Your task to perform on an android device: toggle airplane mode Image 0: 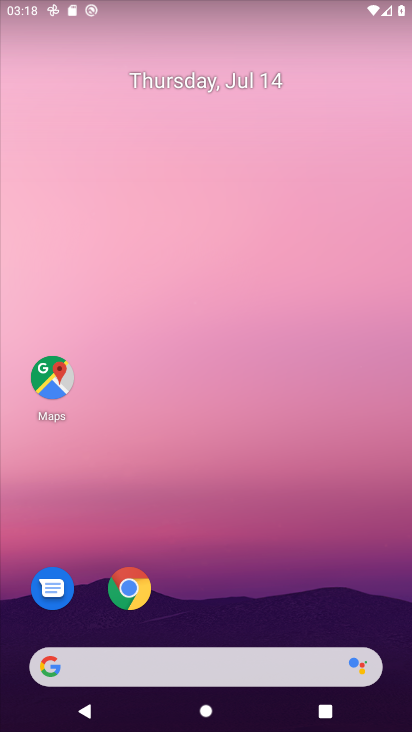
Step 0: drag from (299, 566) to (242, 206)
Your task to perform on an android device: toggle airplane mode Image 1: 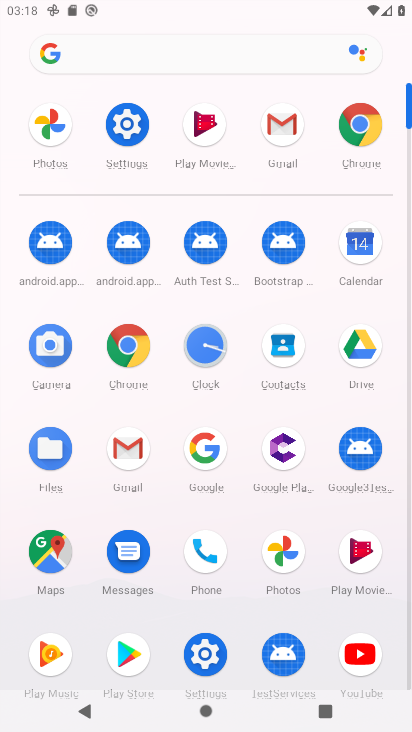
Step 1: click (124, 138)
Your task to perform on an android device: toggle airplane mode Image 2: 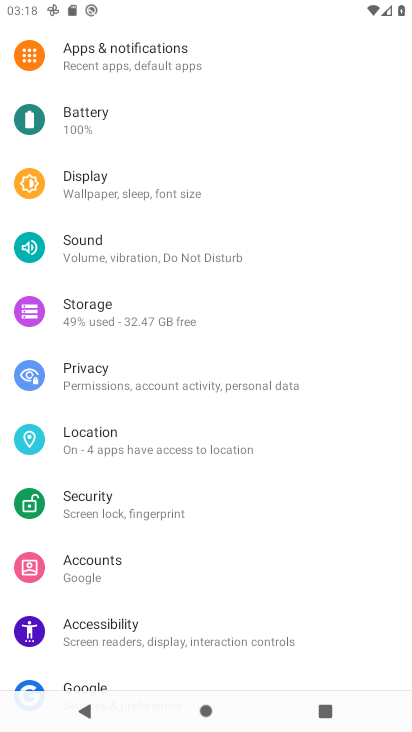
Step 2: drag from (206, 102) to (220, 492)
Your task to perform on an android device: toggle airplane mode Image 3: 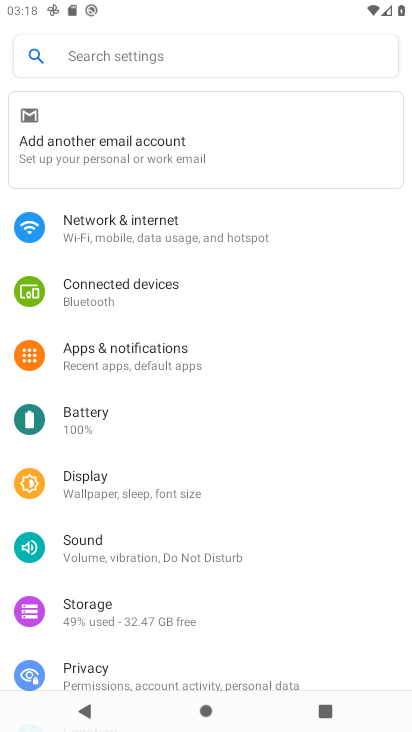
Step 3: click (191, 231)
Your task to perform on an android device: toggle airplane mode Image 4: 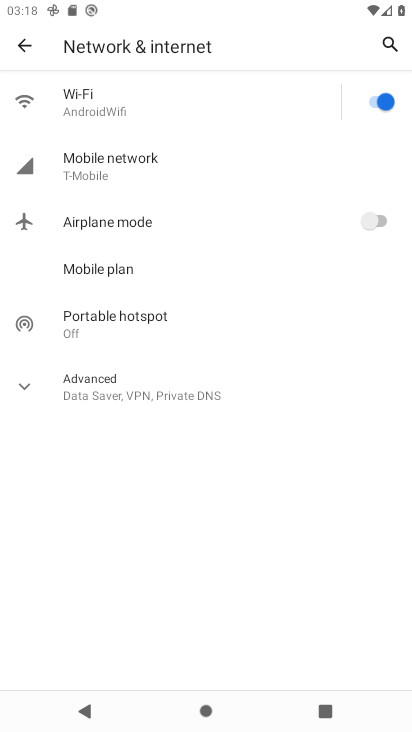
Step 4: click (386, 224)
Your task to perform on an android device: toggle airplane mode Image 5: 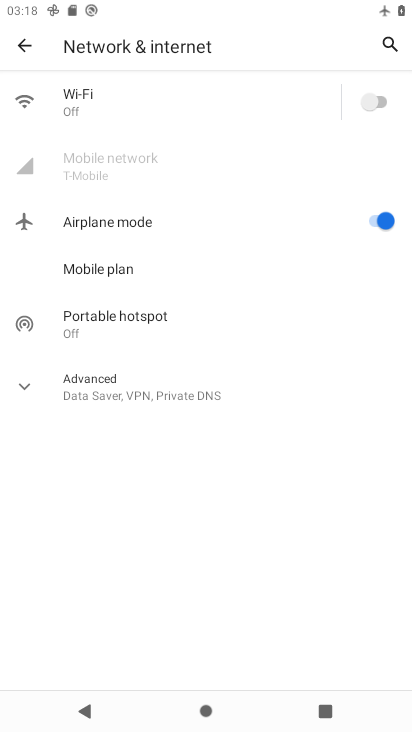
Step 5: task complete